Your task to perform on an android device: toggle show notifications on the lock screen Image 0: 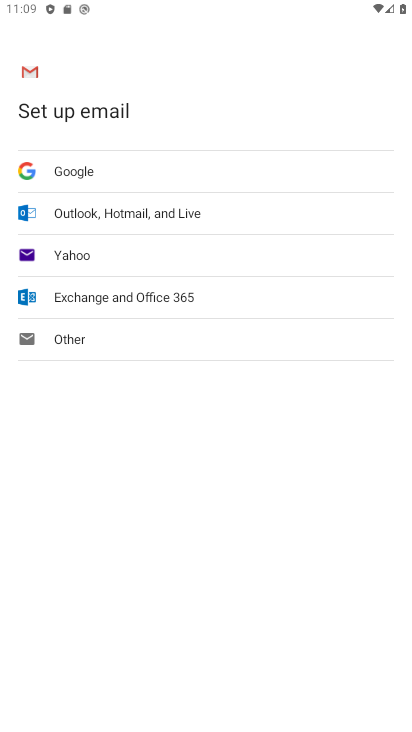
Step 0: press home button
Your task to perform on an android device: toggle show notifications on the lock screen Image 1: 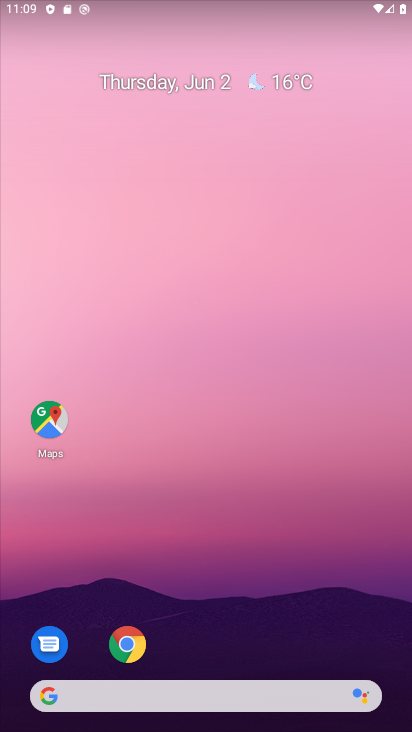
Step 1: drag from (188, 574) to (311, 156)
Your task to perform on an android device: toggle show notifications on the lock screen Image 2: 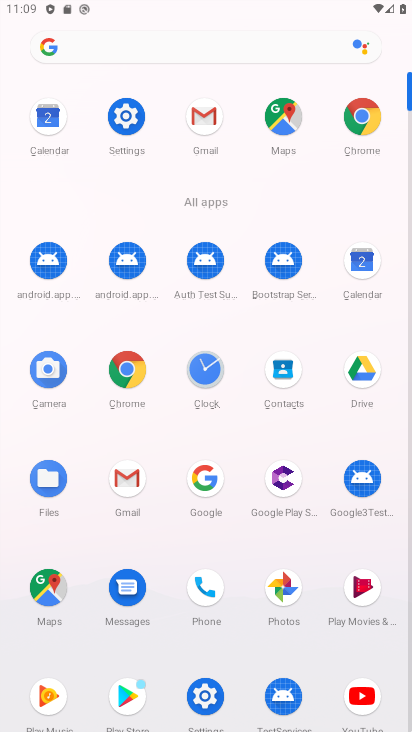
Step 2: click (203, 698)
Your task to perform on an android device: toggle show notifications on the lock screen Image 3: 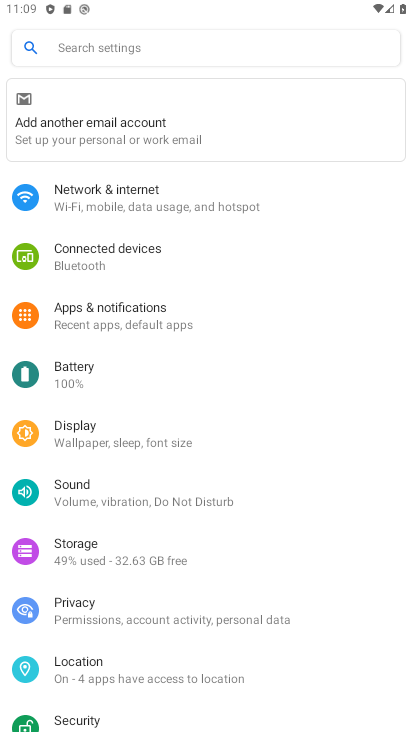
Step 3: click (155, 308)
Your task to perform on an android device: toggle show notifications on the lock screen Image 4: 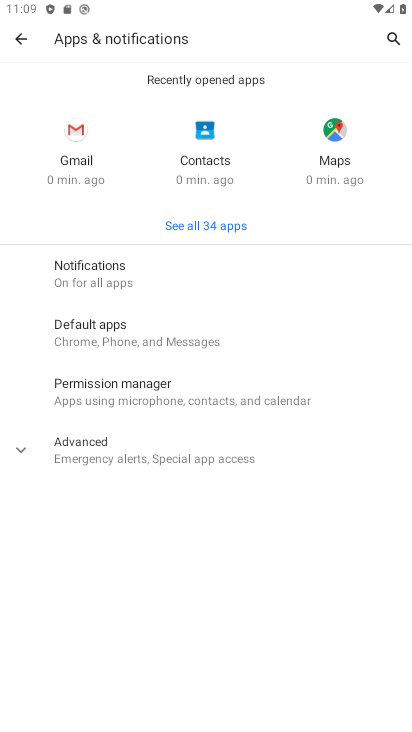
Step 4: click (122, 270)
Your task to perform on an android device: toggle show notifications on the lock screen Image 5: 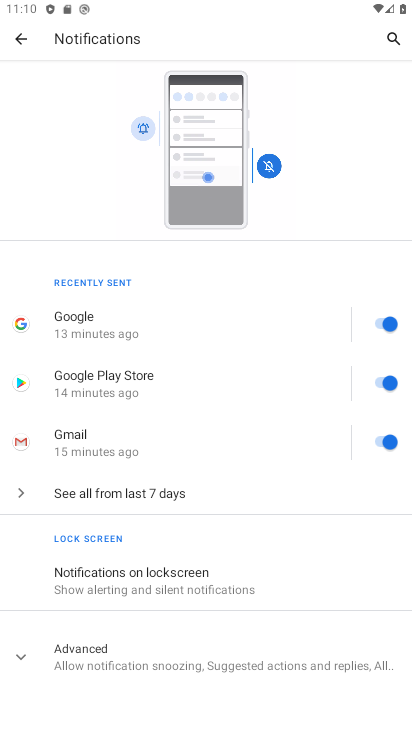
Step 5: click (160, 579)
Your task to perform on an android device: toggle show notifications on the lock screen Image 6: 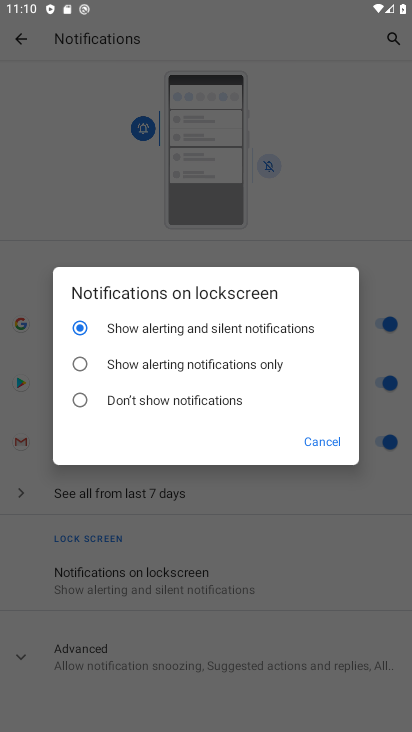
Step 6: task complete